Your task to perform on an android device: Open calendar and show me the fourth week of next month Image 0: 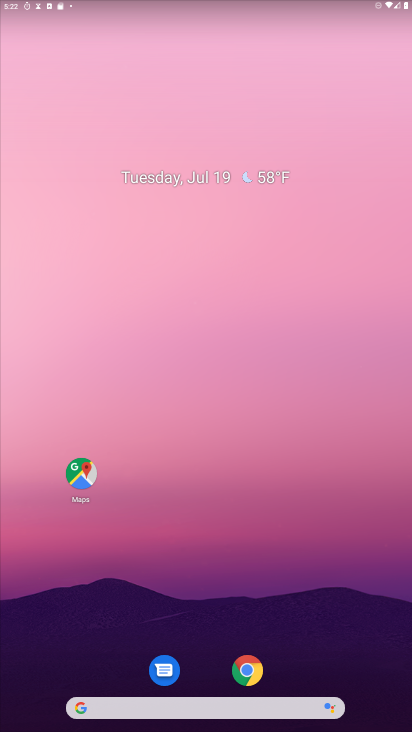
Step 0: drag from (280, 632) to (296, 3)
Your task to perform on an android device: Open calendar and show me the fourth week of next month Image 1: 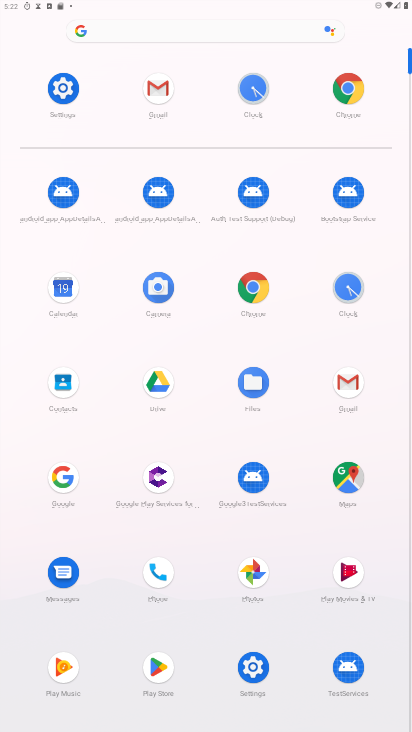
Step 1: click (67, 290)
Your task to perform on an android device: Open calendar and show me the fourth week of next month Image 2: 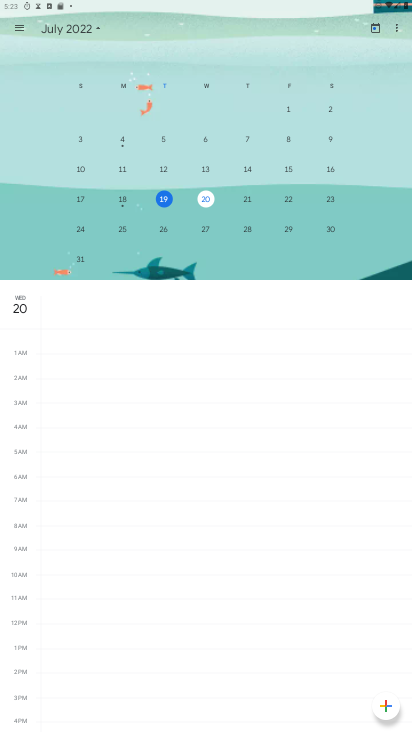
Step 2: drag from (311, 174) to (60, 188)
Your task to perform on an android device: Open calendar and show me the fourth week of next month Image 3: 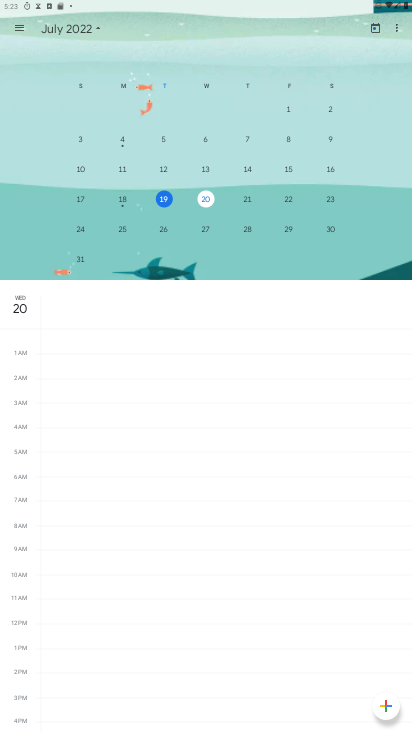
Step 3: drag from (183, 166) to (119, 179)
Your task to perform on an android device: Open calendar and show me the fourth week of next month Image 4: 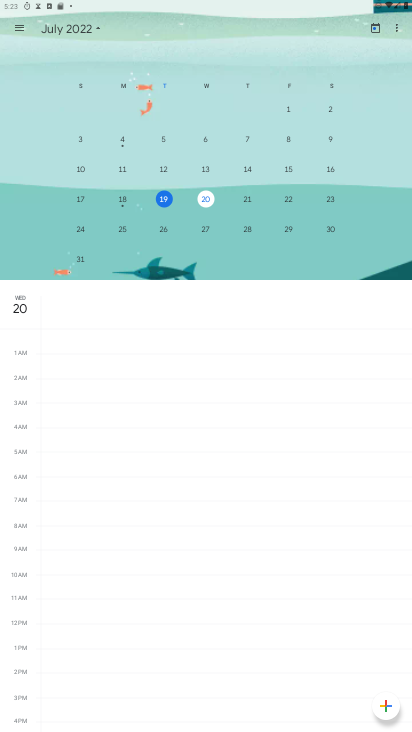
Step 4: click (38, 194)
Your task to perform on an android device: Open calendar and show me the fourth week of next month Image 5: 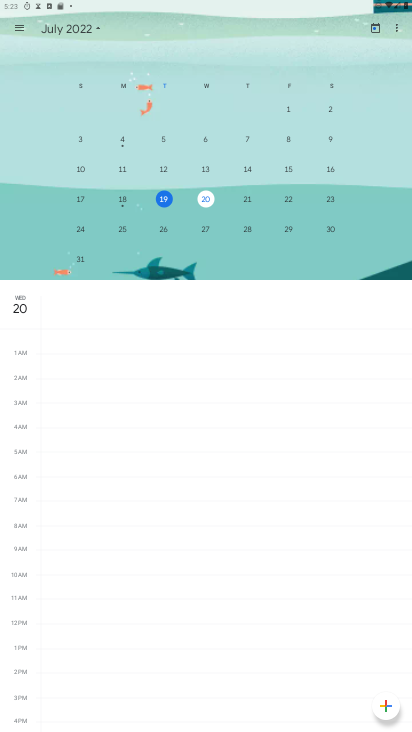
Step 5: drag from (350, 164) to (6, 162)
Your task to perform on an android device: Open calendar and show me the fourth week of next month Image 6: 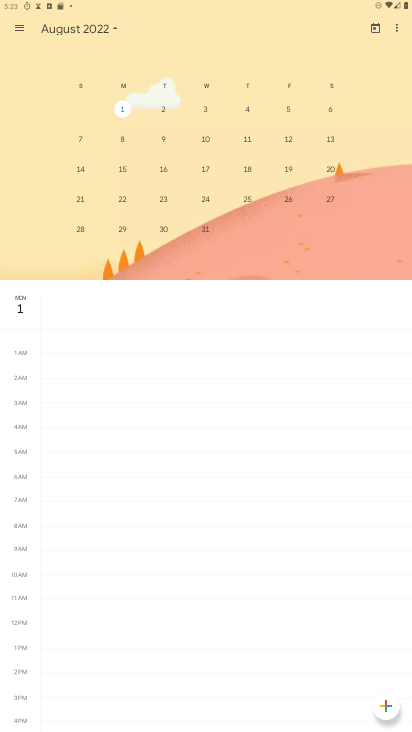
Step 6: click (206, 192)
Your task to perform on an android device: Open calendar and show me the fourth week of next month Image 7: 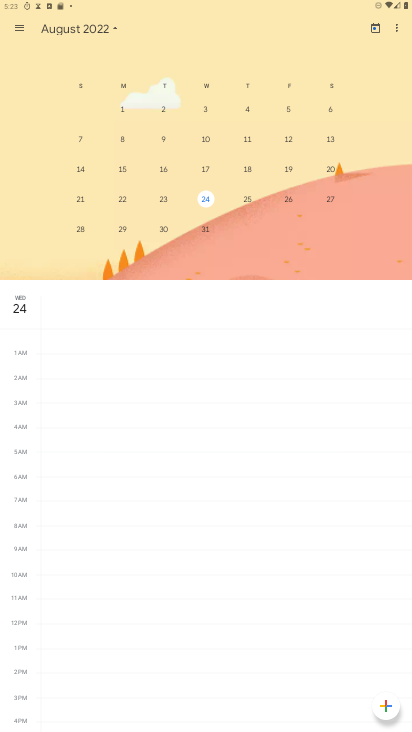
Step 7: click (14, 25)
Your task to perform on an android device: Open calendar and show me the fourth week of next month Image 8: 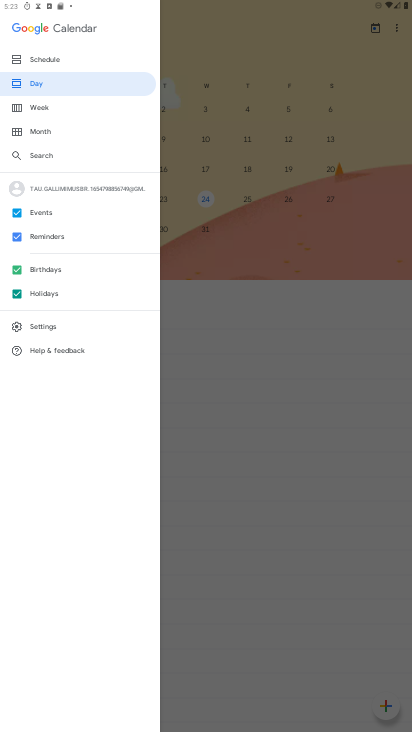
Step 8: click (33, 110)
Your task to perform on an android device: Open calendar and show me the fourth week of next month Image 9: 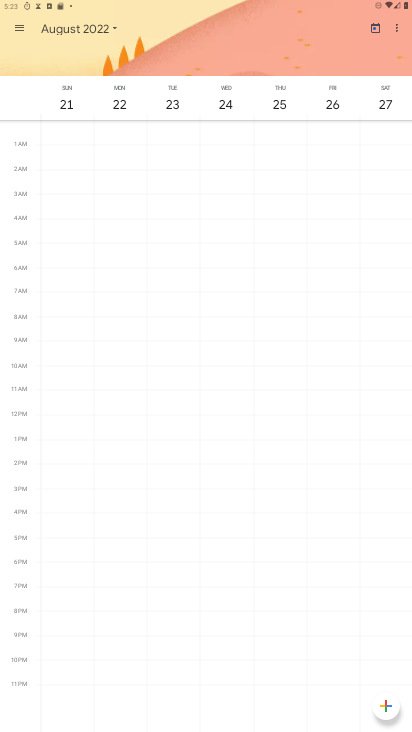
Step 9: task complete